Your task to perform on an android device: Show me productivity apps on the Play Store Image 0: 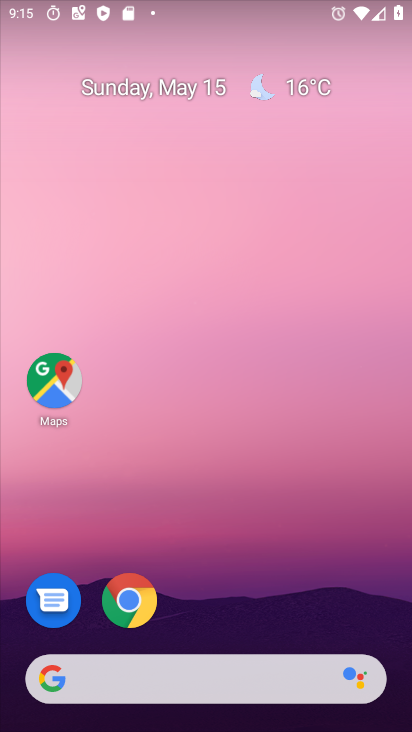
Step 0: drag from (233, 598) to (218, 62)
Your task to perform on an android device: Show me productivity apps on the Play Store Image 1: 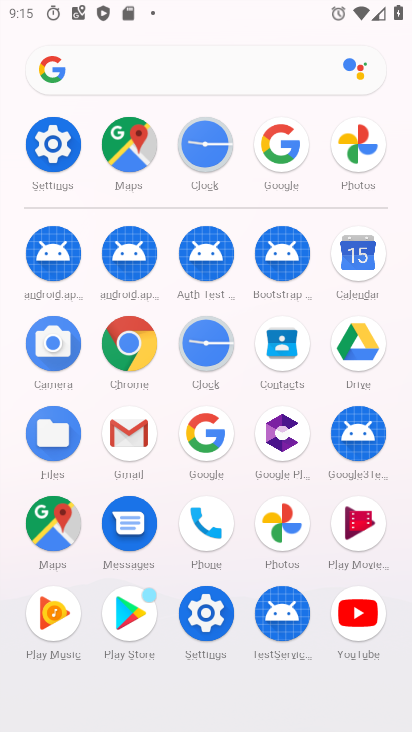
Step 1: click (120, 606)
Your task to perform on an android device: Show me productivity apps on the Play Store Image 2: 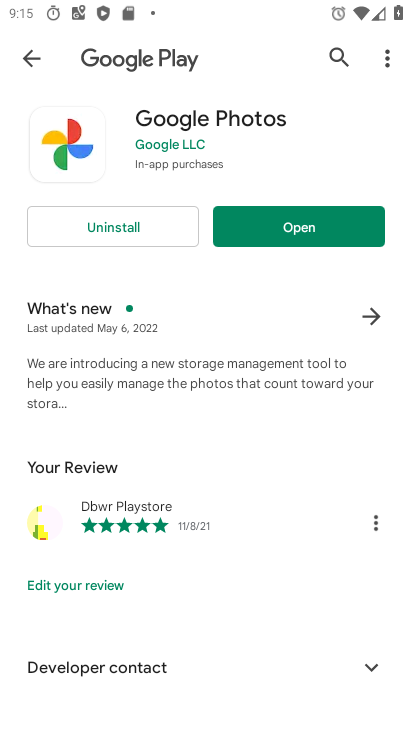
Step 2: press back button
Your task to perform on an android device: Show me productivity apps on the Play Store Image 3: 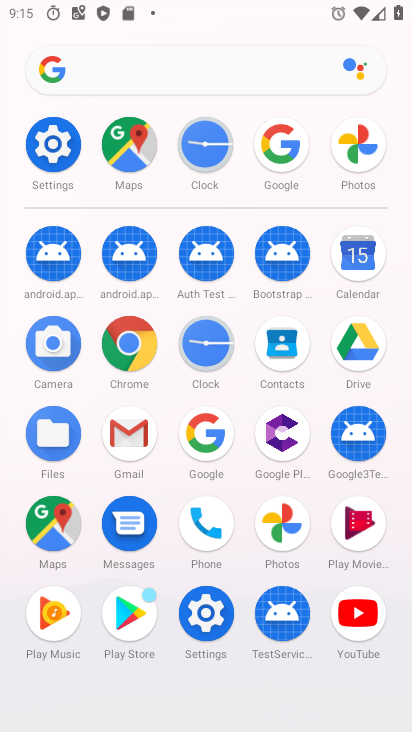
Step 3: click (124, 610)
Your task to perform on an android device: Show me productivity apps on the Play Store Image 4: 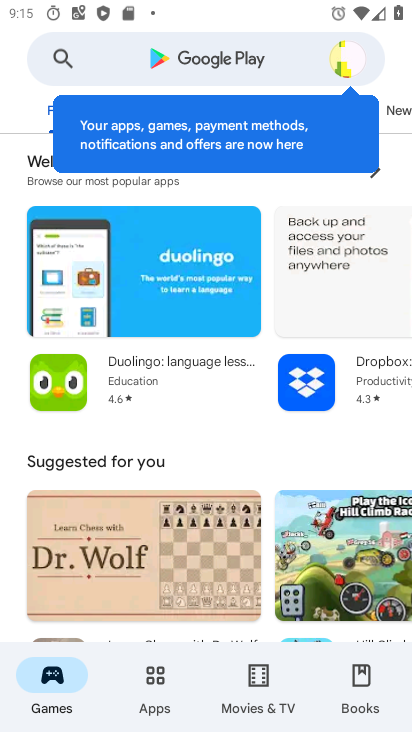
Step 4: click (163, 688)
Your task to perform on an android device: Show me productivity apps on the Play Store Image 5: 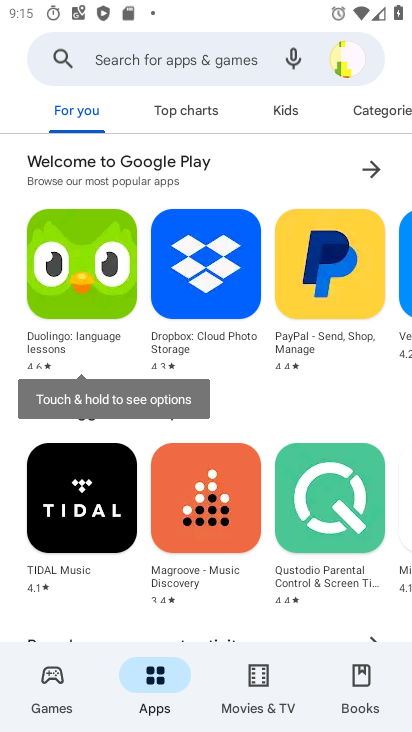
Step 5: drag from (358, 111) to (42, 107)
Your task to perform on an android device: Show me productivity apps on the Play Store Image 6: 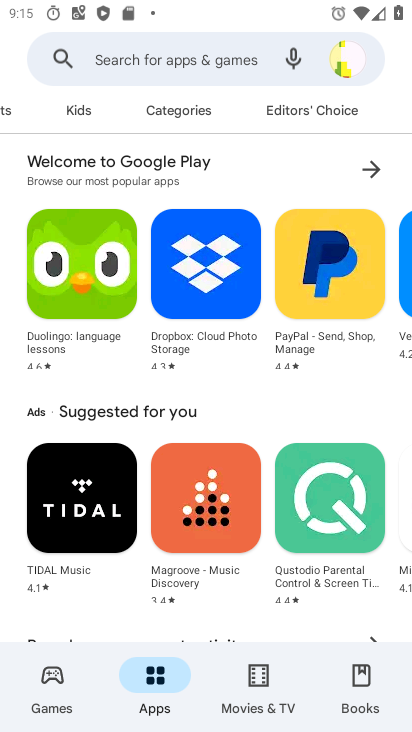
Step 6: click (202, 108)
Your task to perform on an android device: Show me productivity apps on the Play Store Image 7: 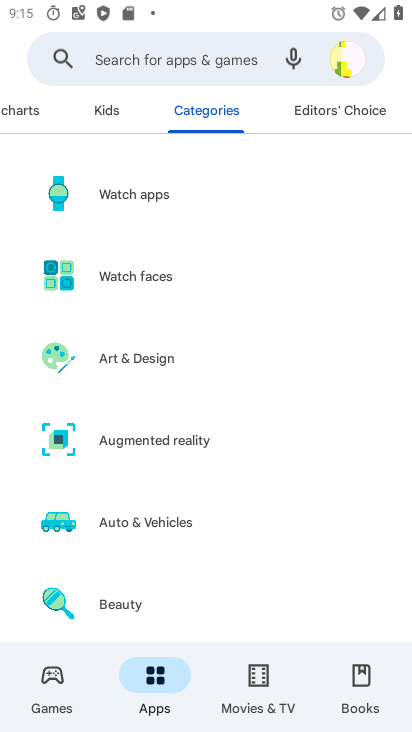
Step 7: drag from (259, 546) to (253, 149)
Your task to perform on an android device: Show me productivity apps on the Play Store Image 8: 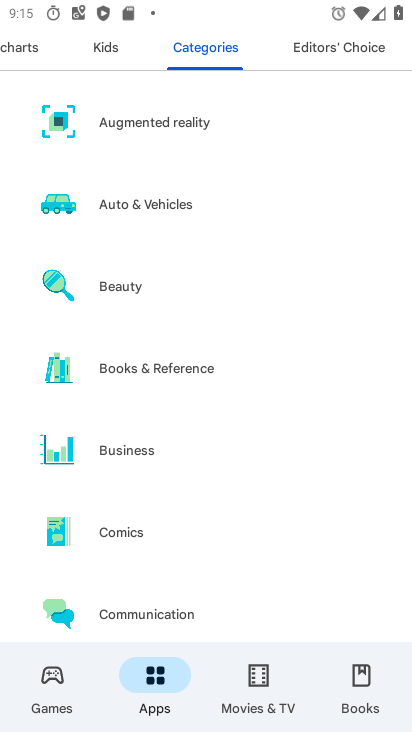
Step 8: drag from (230, 580) to (231, 0)
Your task to perform on an android device: Show me productivity apps on the Play Store Image 9: 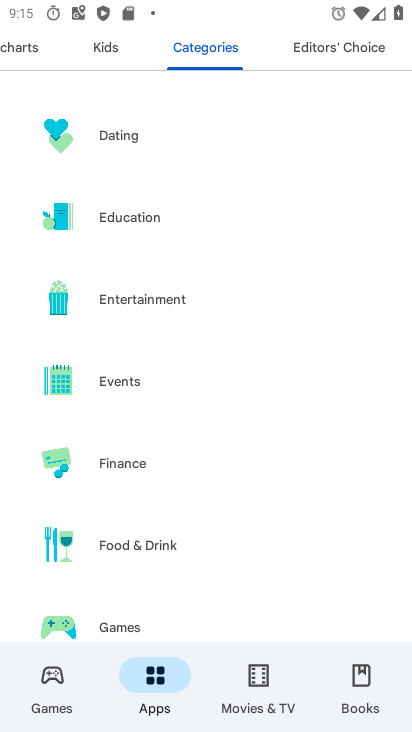
Step 9: drag from (244, 548) to (247, 26)
Your task to perform on an android device: Show me productivity apps on the Play Store Image 10: 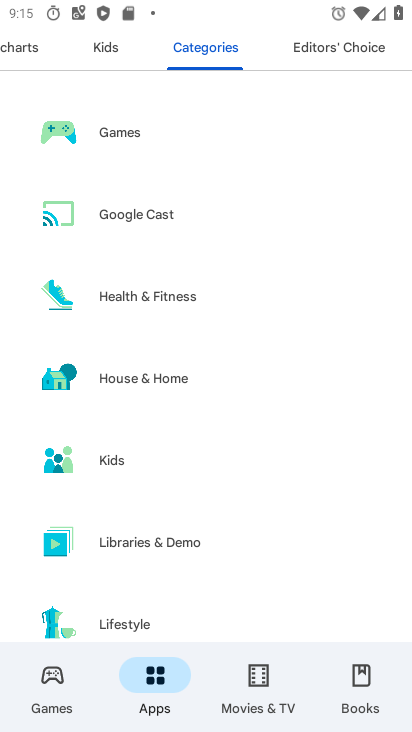
Step 10: drag from (225, 580) to (239, 60)
Your task to perform on an android device: Show me productivity apps on the Play Store Image 11: 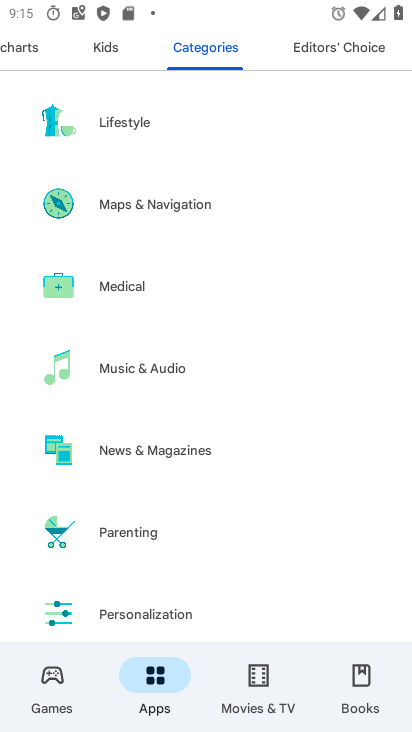
Step 11: drag from (200, 568) to (247, 144)
Your task to perform on an android device: Show me productivity apps on the Play Store Image 12: 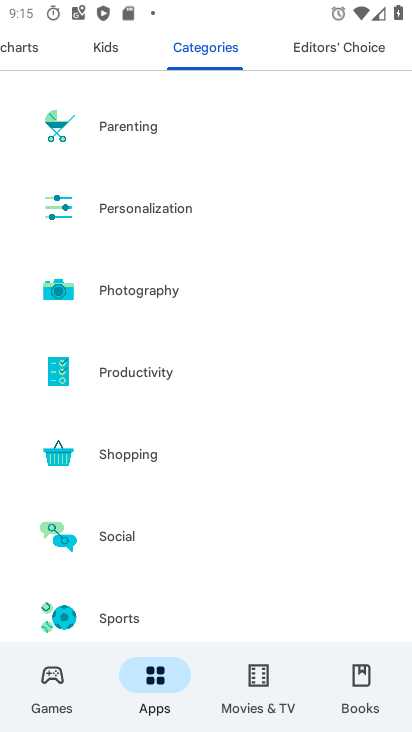
Step 12: click (86, 375)
Your task to perform on an android device: Show me productivity apps on the Play Store Image 13: 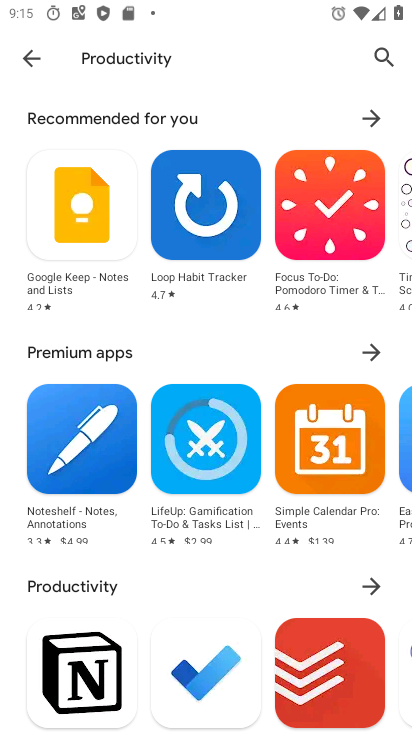
Step 13: drag from (182, 600) to (211, 341)
Your task to perform on an android device: Show me productivity apps on the Play Store Image 14: 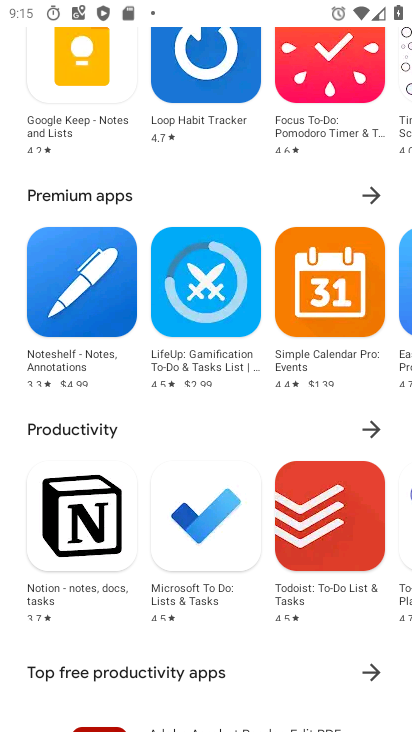
Step 14: click (366, 429)
Your task to perform on an android device: Show me productivity apps on the Play Store Image 15: 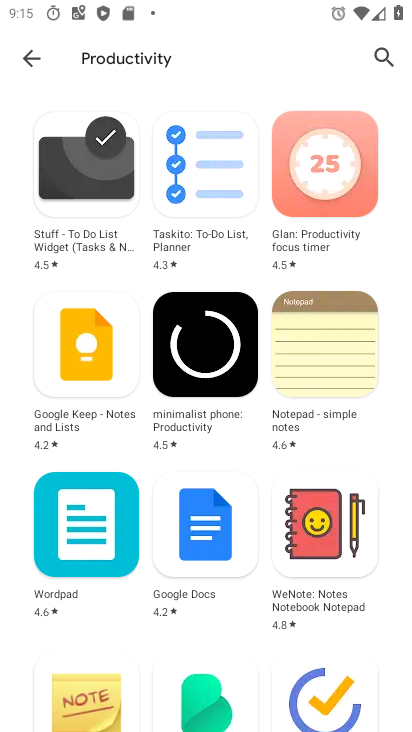
Step 15: task complete